Your task to perform on an android device: turn off wifi Image 0: 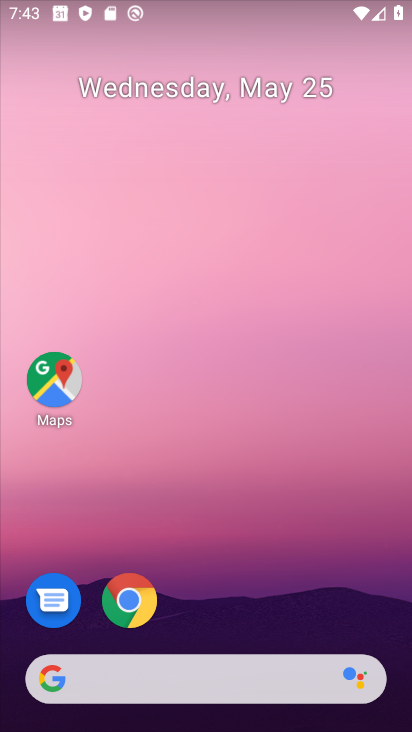
Step 0: drag from (283, 543) to (258, 130)
Your task to perform on an android device: turn off wifi Image 1: 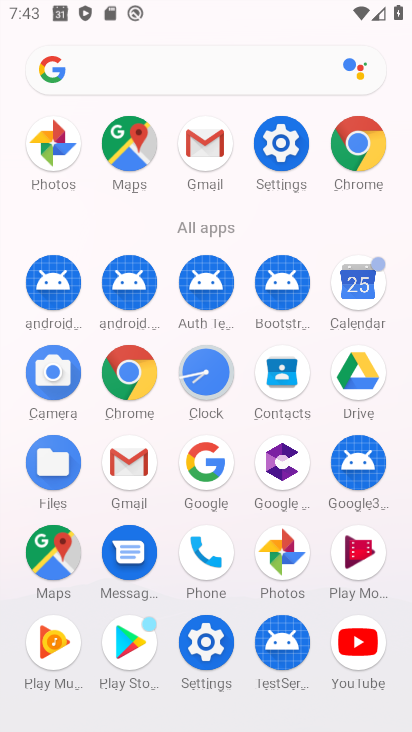
Step 1: click (271, 142)
Your task to perform on an android device: turn off wifi Image 2: 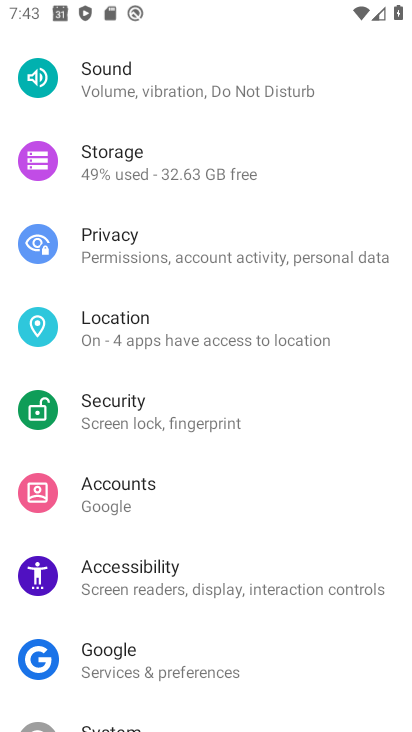
Step 2: drag from (266, 122) to (219, 459)
Your task to perform on an android device: turn off wifi Image 3: 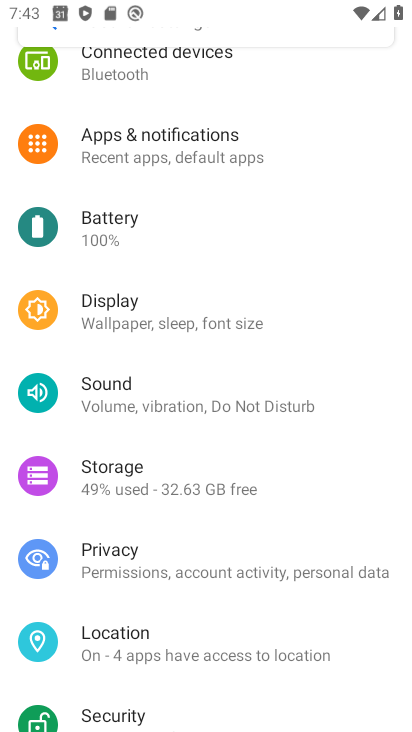
Step 3: drag from (175, 113) to (186, 428)
Your task to perform on an android device: turn off wifi Image 4: 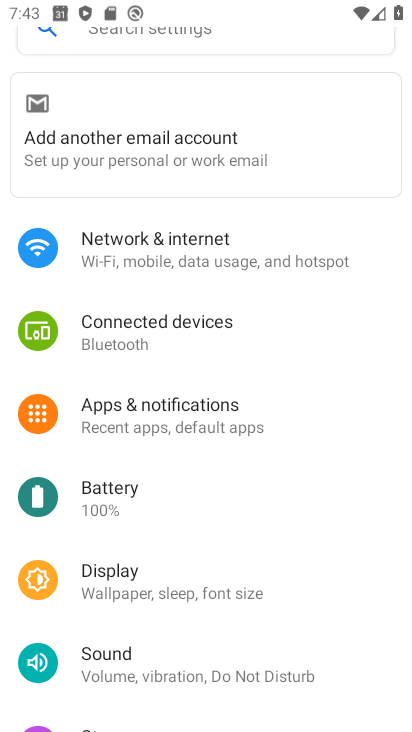
Step 4: click (185, 247)
Your task to perform on an android device: turn off wifi Image 5: 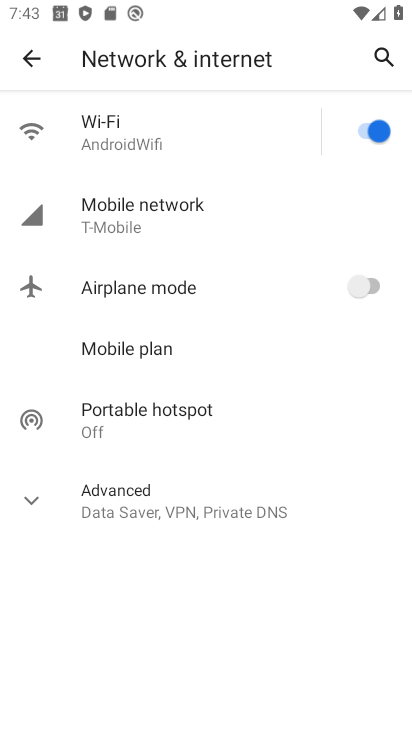
Step 5: click (375, 123)
Your task to perform on an android device: turn off wifi Image 6: 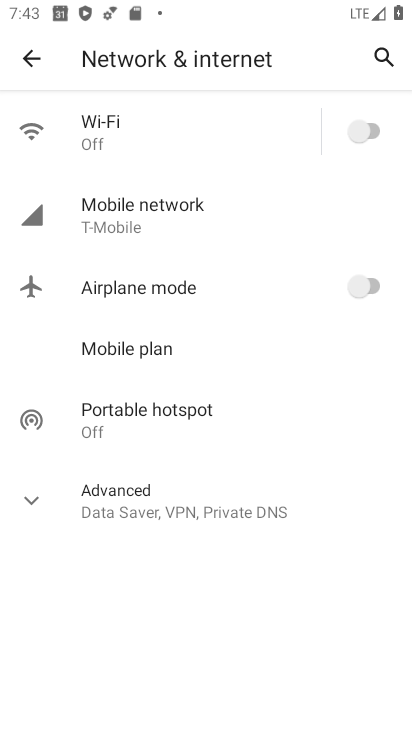
Step 6: task complete